Your task to perform on an android device: star an email in the gmail app Image 0: 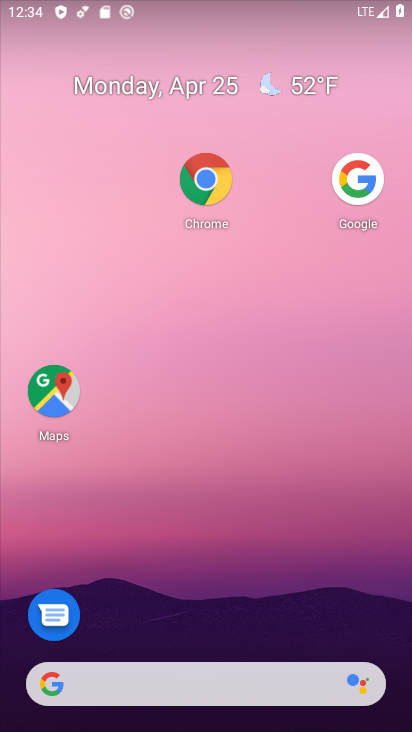
Step 0: drag from (156, 654) to (318, 85)
Your task to perform on an android device: star an email in the gmail app Image 1: 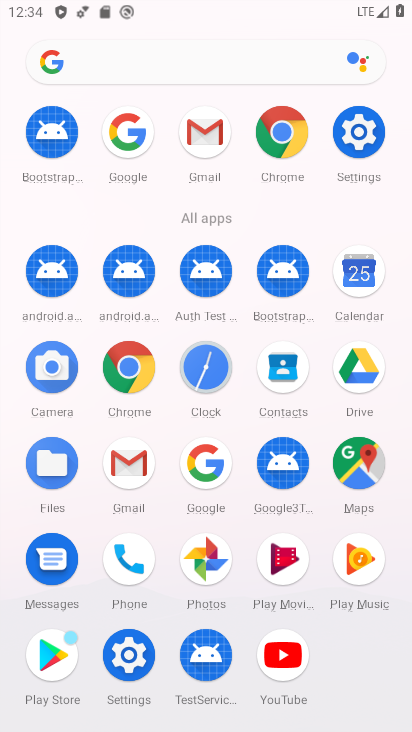
Step 1: click (203, 133)
Your task to perform on an android device: star an email in the gmail app Image 2: 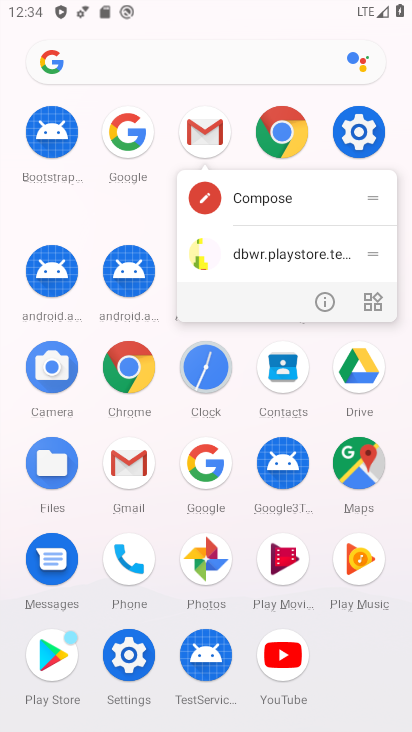
Step 2: click (205, 141)
Your task to perform on an android device: star an email in the gmail app Image 3: 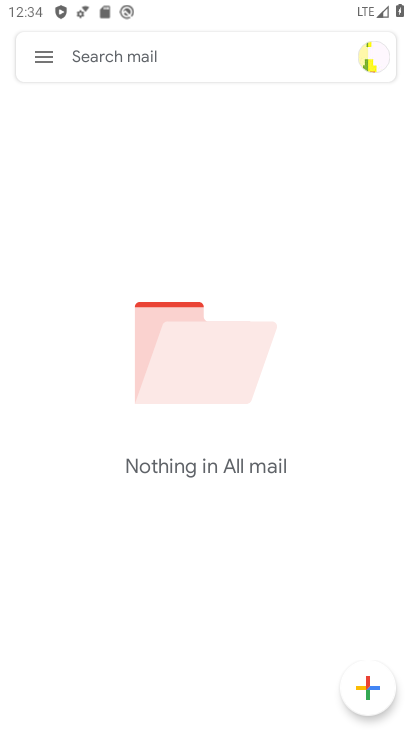
Step 3: task complete